Your task to perform on an android device: open chrome and create a bookmark for the current page Image 0: 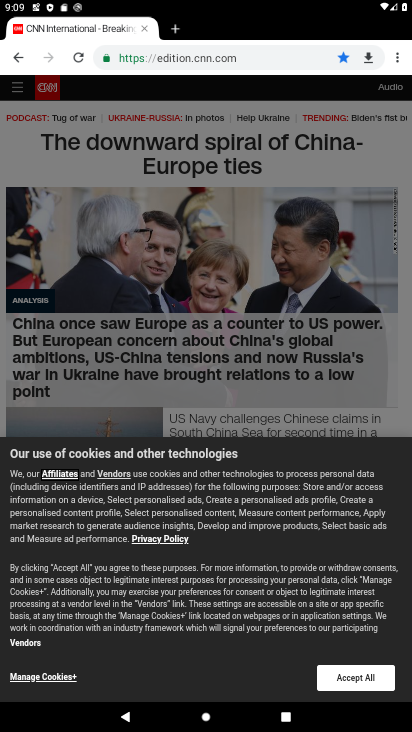
Step 0: click (395, 58)
Your task to perform on an android device: open chrome and create a bookmark for the current page Image 1: 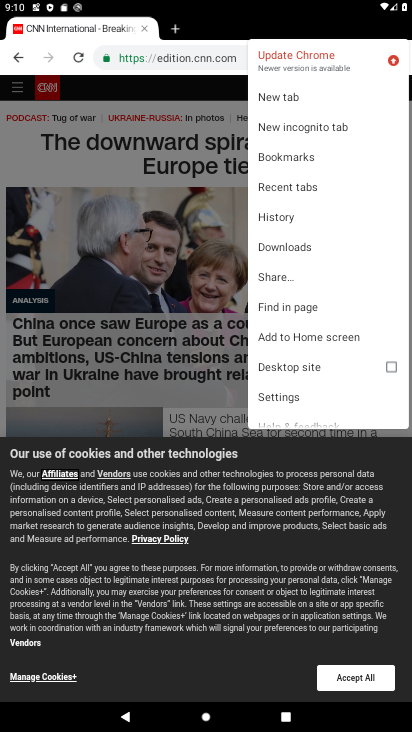
Step 1: click (288, 158)
Your task to perform on an android device: open chrome and create a bookmark for the current page Image 2: 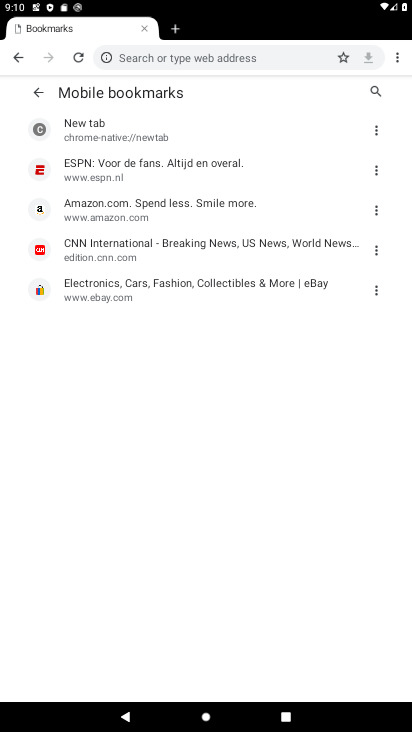
Step 2: click (86, 254)
Your task to perform on an android device: open chrome and create a bookmark for the current page Image 3: 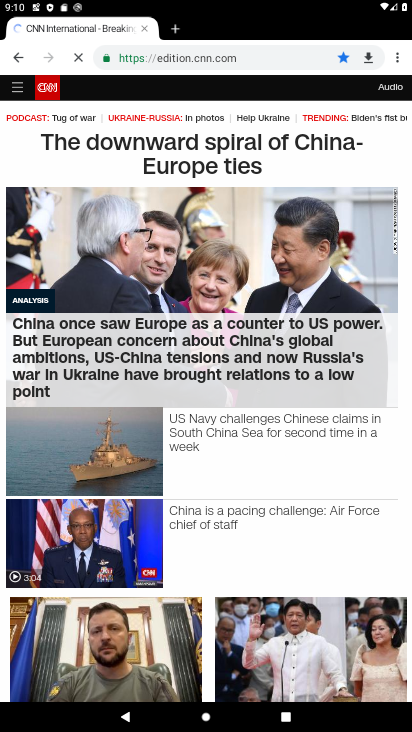
Step 3: task complete